Your task to perform on an android device: turn on the 24-hour format for clock Image 0: 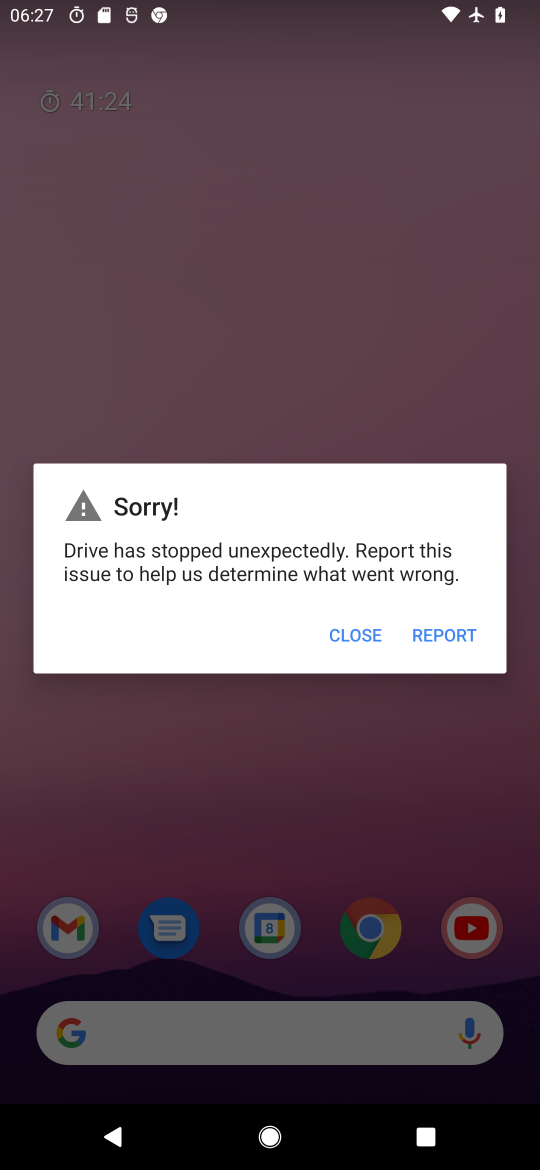
Step 0: click (361, 632)
Your task to perform on an android device: turn on the 24-hour format for clock Image 1: 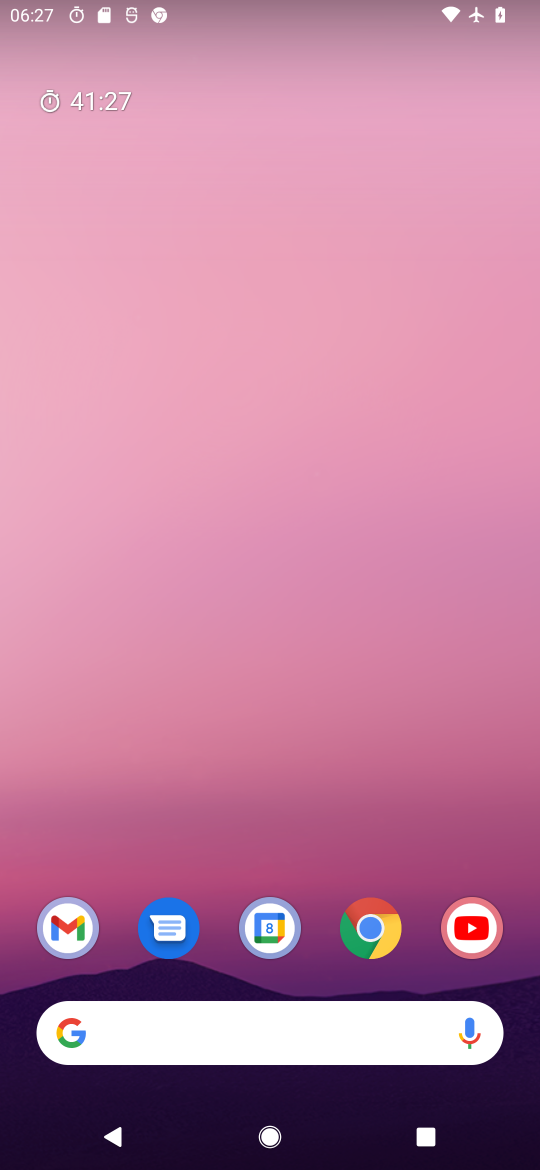
Step 1: drag from (223, 893) to (242, 154)
Your task to perform on an android device: turn on the 24-hour format for clock Image 2: 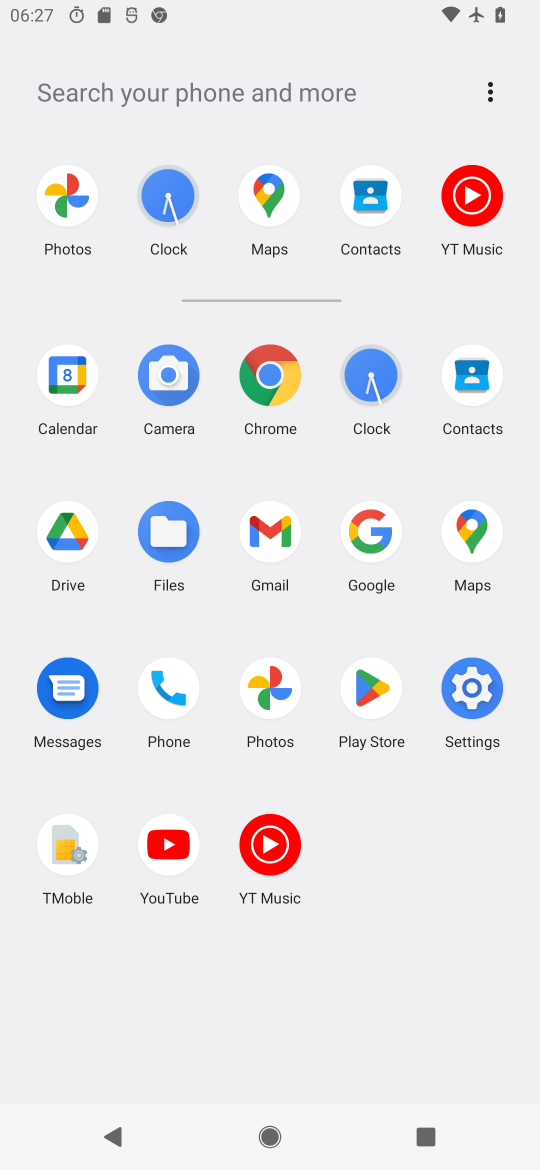
Step 2: click (489, 706)
Your task to perform on an android device: turn on the 24-hour format for clock Image 3: 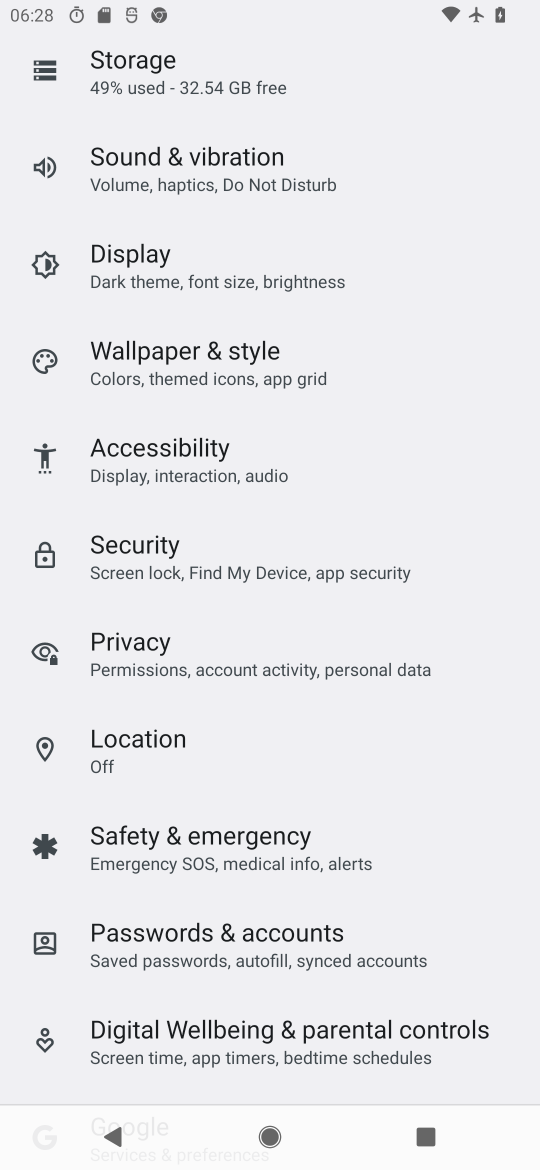
Step 3: drag from (159, 398) to (212, 518)
Your task to perform on an android device: turn on the 24-hour format for clock Image 4: 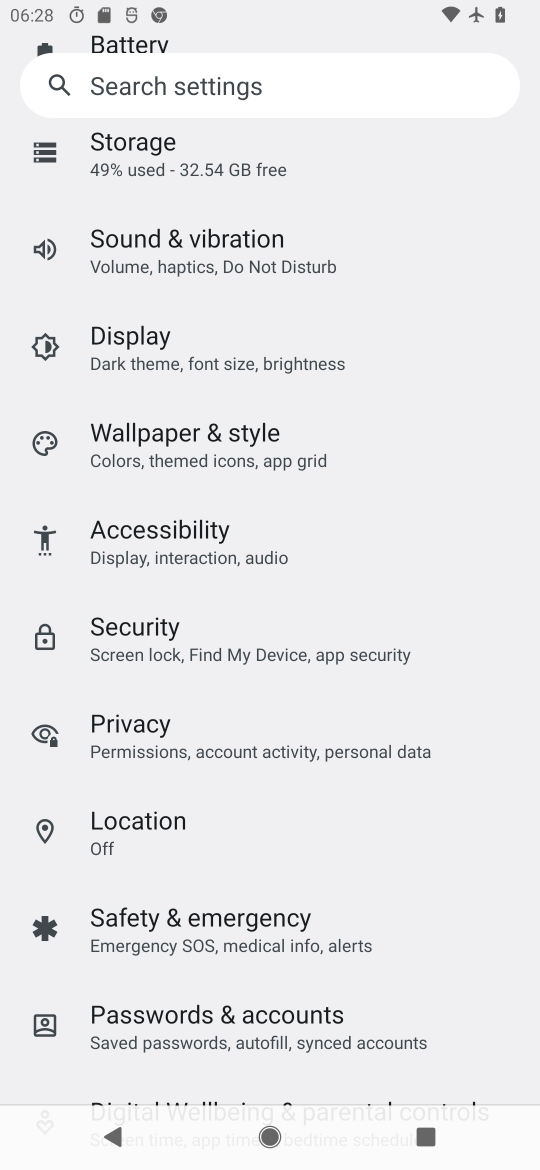
Step 4: drag from (288, 939) to (301, 804)
Your task to perform on an android device: turn on the 24-hour format for clock Image 5: 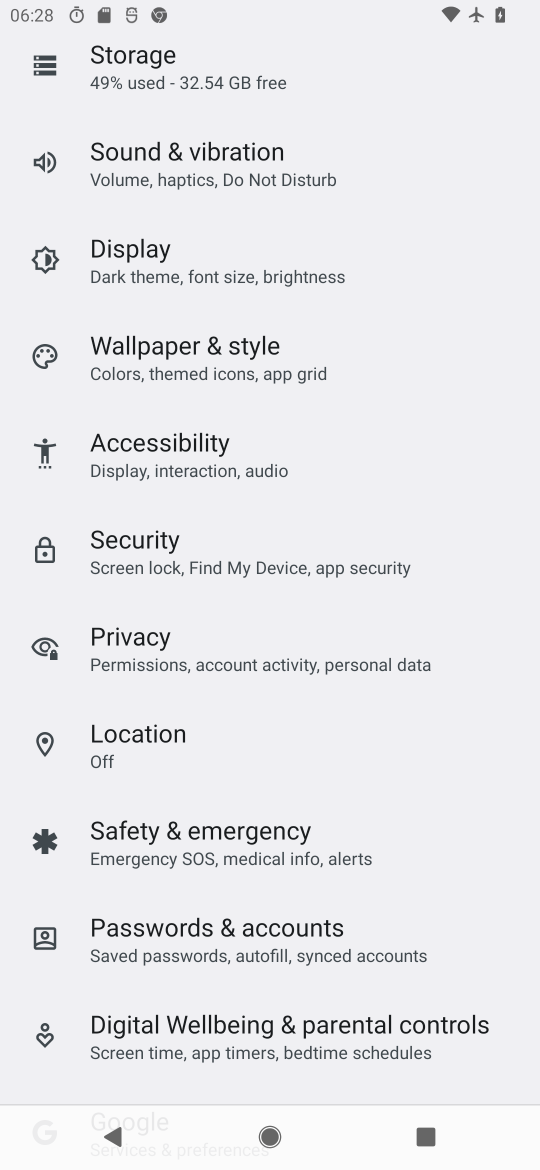
Step 5: drag from (308, 943) to (308, 689)
Your task to perform on an android device: turn on the 24-hour format for clock Image 6: 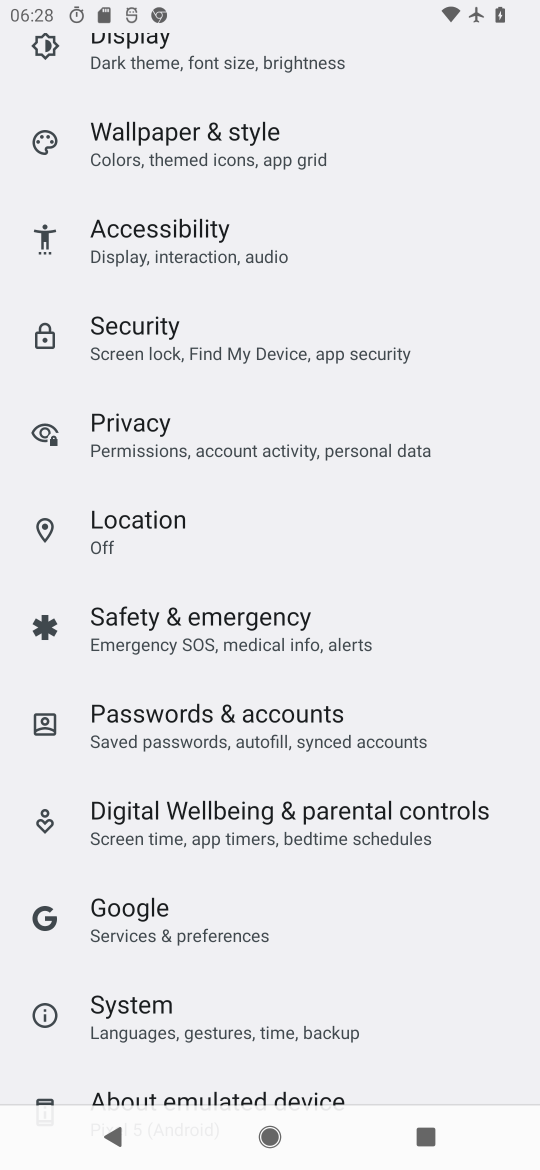
Step 6: click (225, 1029)
Your task to perform on an android device: turn on the 24-hour format for clock Image 7: 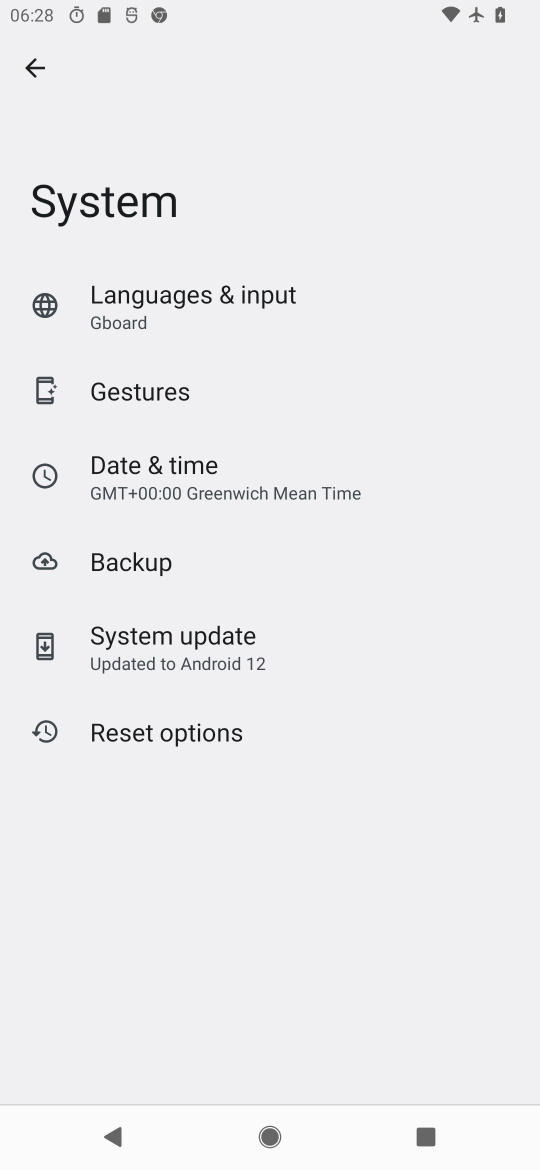
Step 7: click (175, 479)
Your task to perform on an android device: turn on the 24-hour format for clock Image 8: 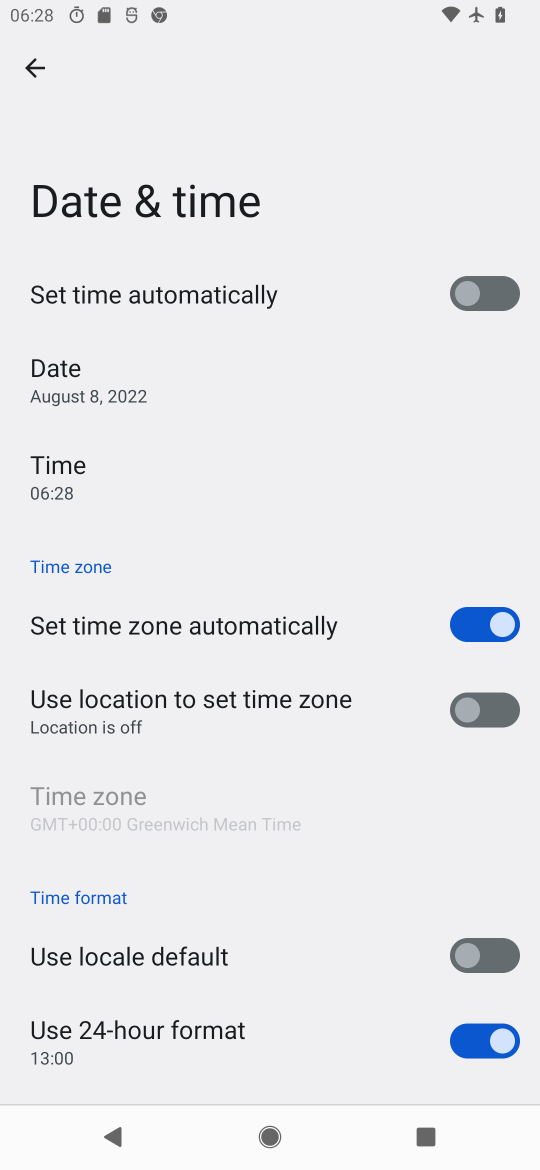
Step 8: task complete